Your task to perform on an android device: turn on priority inbox in the gmail app Image 0: 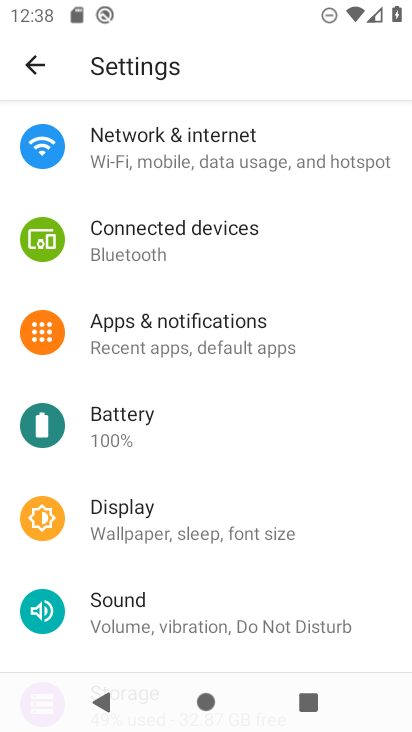
Step 0: press home button
Your task to perform on an android device: turn on priority inbox in the gmail app Image 1: 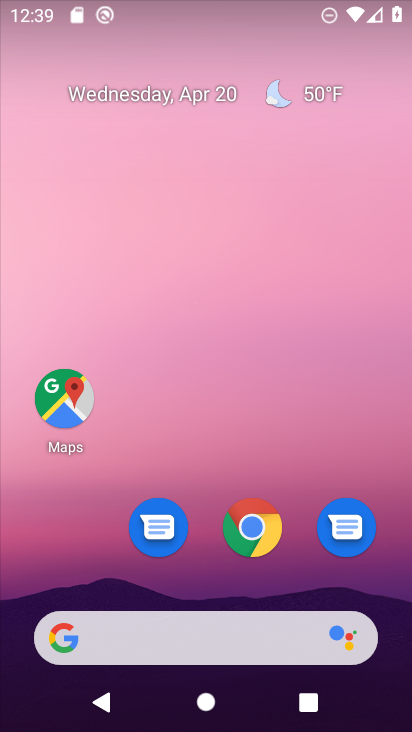
Step 1: drag from (392, 562) to (384, 7)
Your task to perform on an android device: turn on priority inbox in the gmail app Image 2: 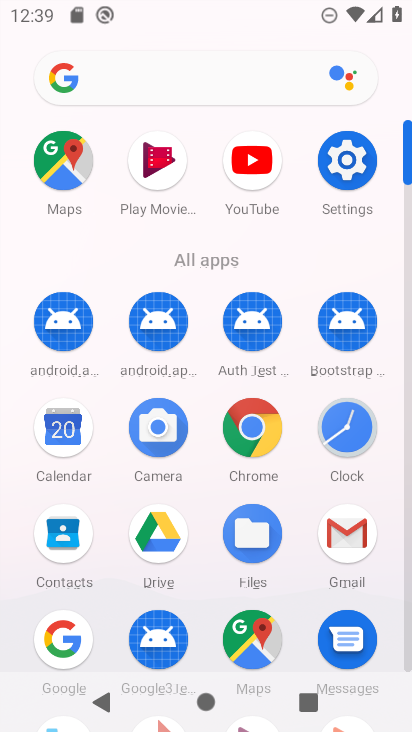
Step 2: click (343, 539)
Your task to perform on an android device: turn on priority inbox in the gmail app Image 3: 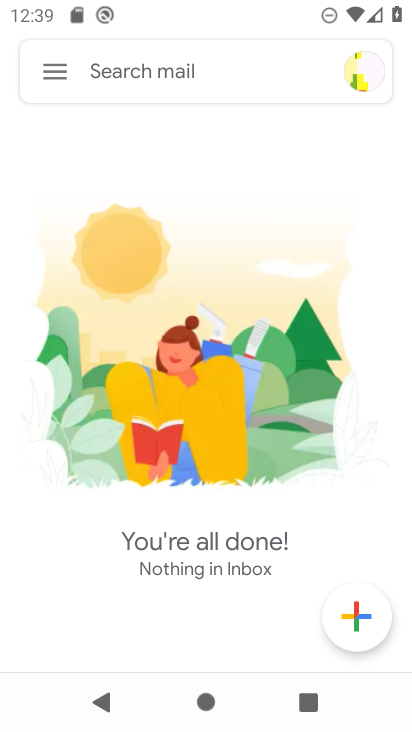
Step 3: click (52, 72)
Your task to perform on an android device: turn on priority inbox in the gmail app Image 4: 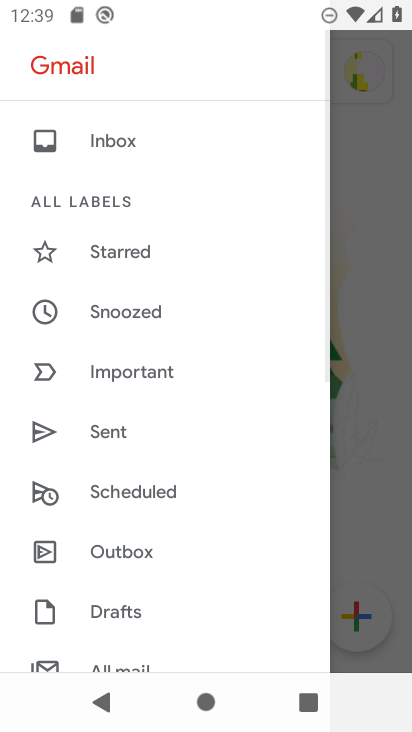
Step 4: drag from (220, 594) to (167, 135)
Your task to perform on an android device: turn on priority inbox in the gmail app Image 5: 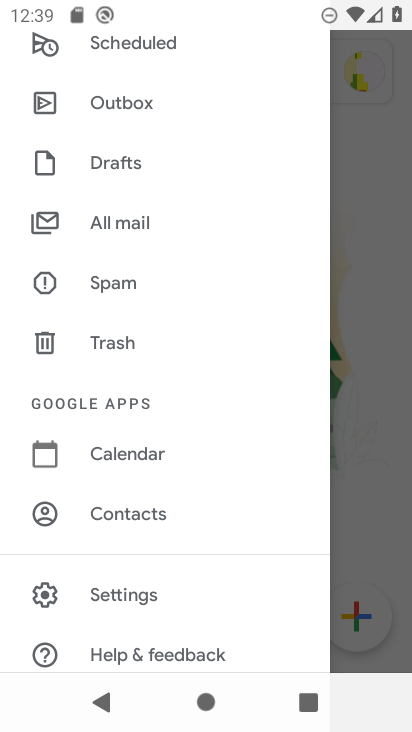
Step 5: click (117, 598)
Your task to perform on an android device: turn on priority inbox in the gmail app Image 6: 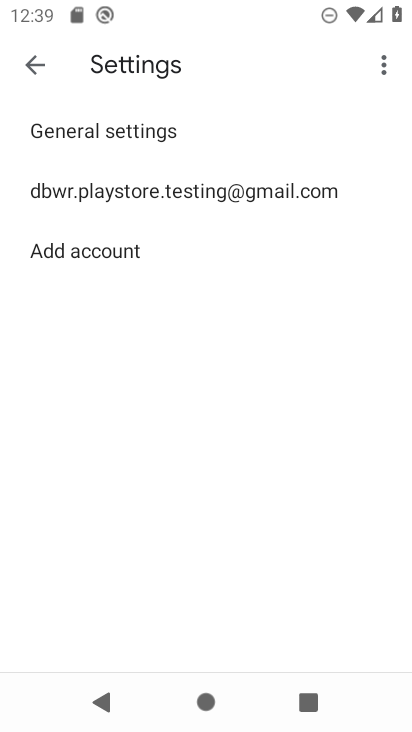
Step 6: click (124, 192)
Your task to perform on an android device: turn on priority inbox in the gmail app Image 7: 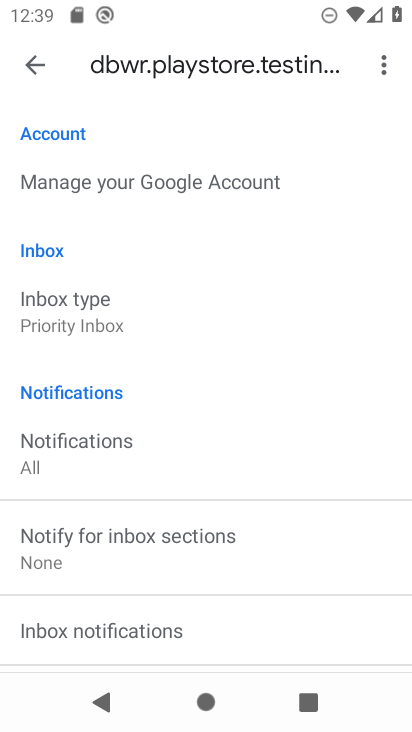
Step 7: click (60, 321)
Your task to perform on an android device: turn on priority inbox in the gmail app Image 8: 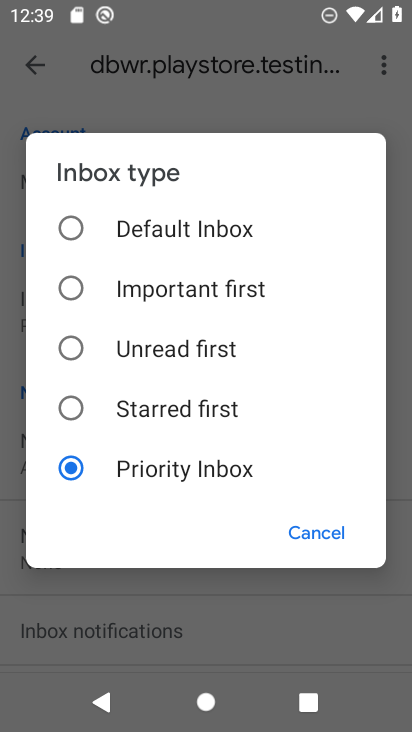
Step 8: task complete